Your task to perform on an android device: turn smart compose on in the gmail app Image 0: 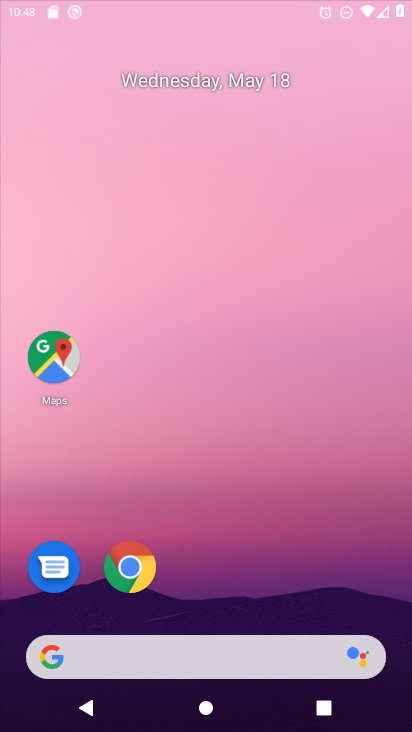
Step 0: press home button
Your task to perform on an android device: turn smart compose on in the gmail app Image 1: 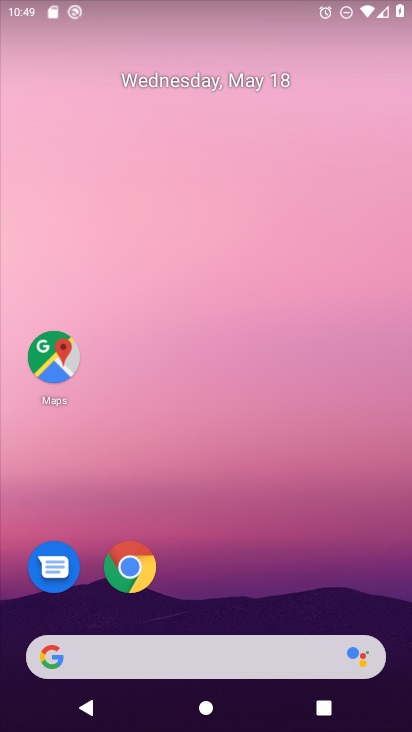
Step 1: drag from (282, 679) to (326, 215)
Your task to perform on an android device: turn smart compose on in the gmail app Image 2: 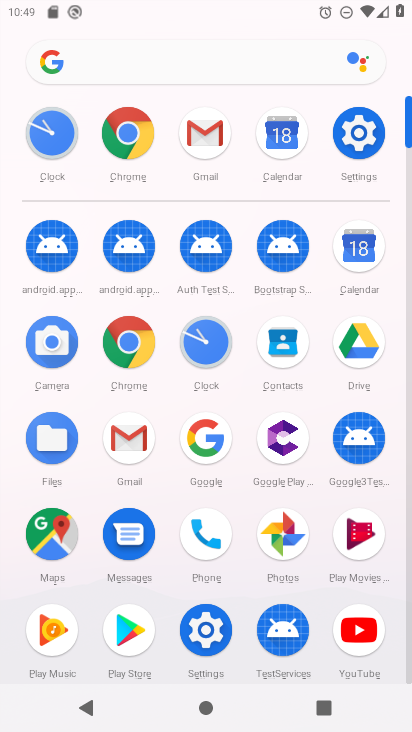
Step 2: click (125, 442)
Your task to perform on an android device: turn smart compose on in the gmail app Image 3: 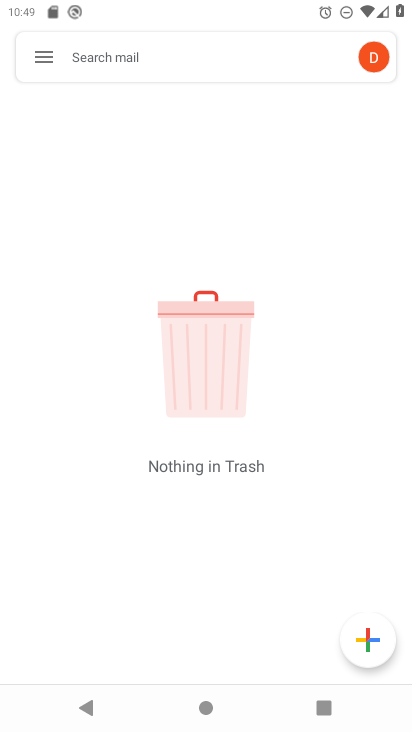
Step 3: click (26, 60)
Your task to perform on an android device: turn smart compose on in the gmail app Image 4: 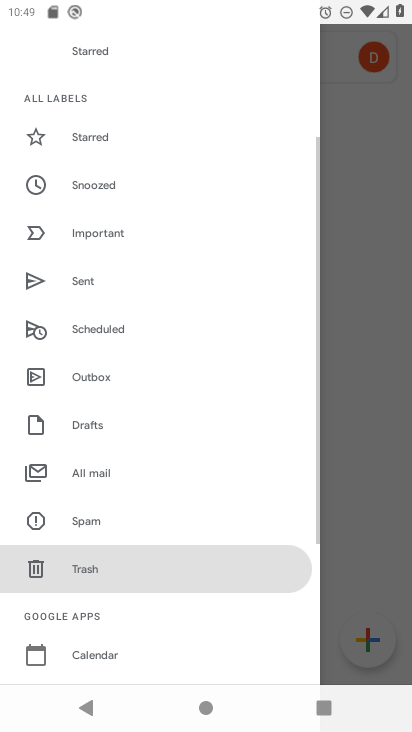
Step 4: drag from (110, 616) to (125, 303)
Your task to perform on an android device: turn smart compose on in the gmail app Image 5: 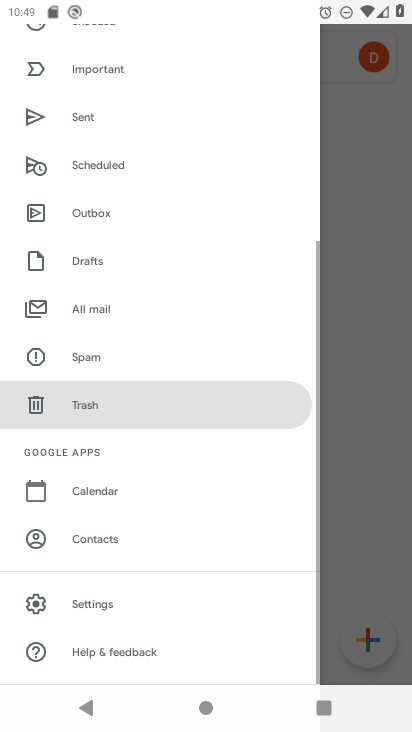
Step 5: click (97, 594)
Your task to perform on an android device: turn smart compose on in the gmail app Image 6: 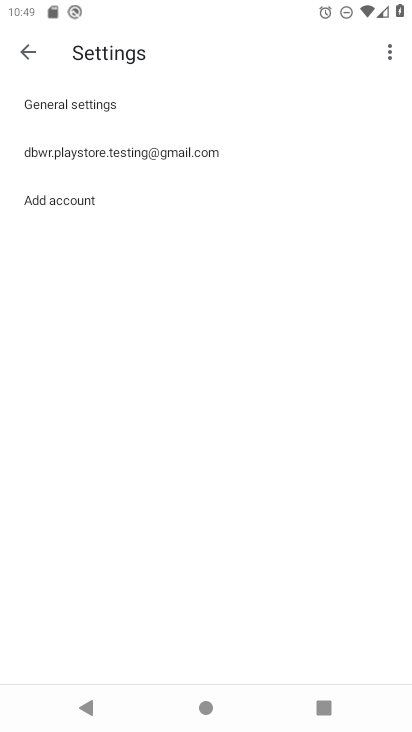
Step 6: click (124, 160)
Your task to perform on an android device: turn smart compose on in the gmail app Image 7: 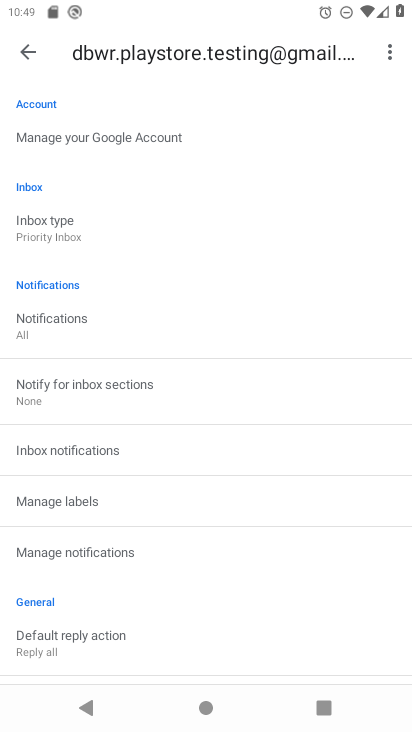
Step 7: drag from (151, 608) to (202, 37)
Your task to perform on an android device: turn smart compose on in the gmail app Image 8: 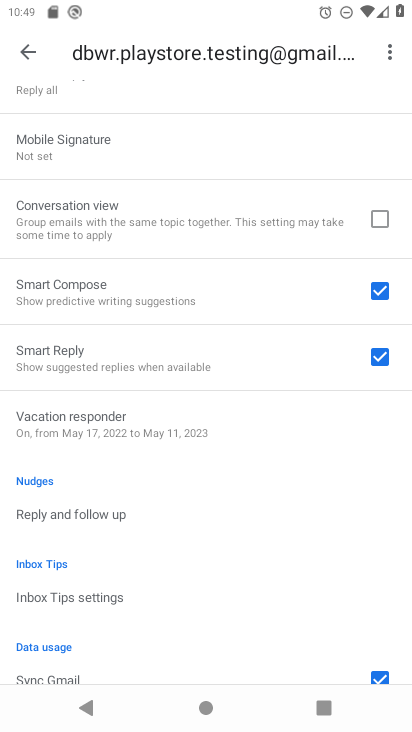
Step 8: click (141, 577)
Your task to perform on an android device: turn smart compose on in the gmail app Image 9: 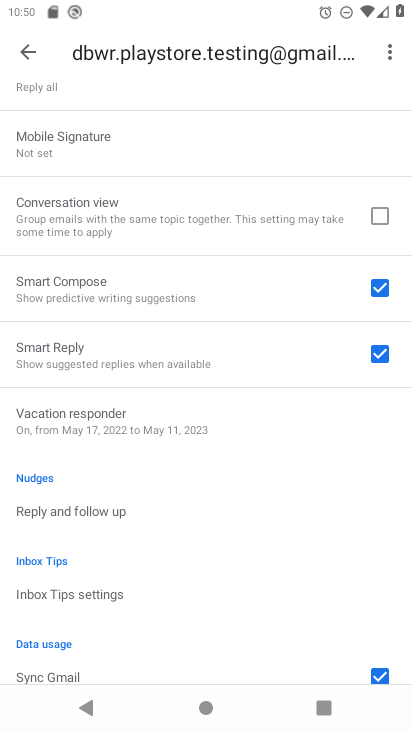
Step 9: click (382, 288)
Your task to perform on an android device: turn smart compose on in the gmail app Image 10: 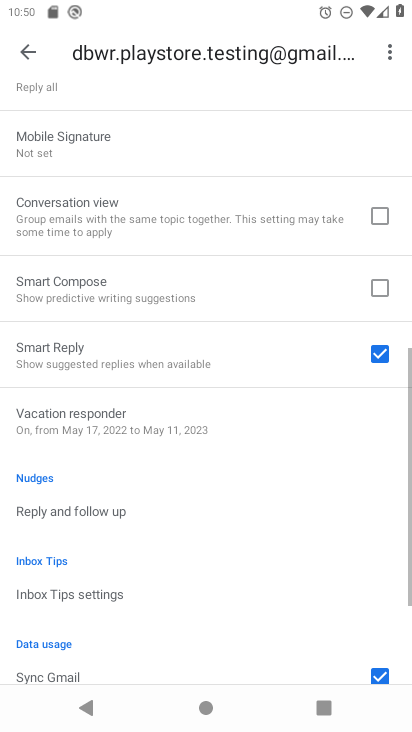
Step 10: click (382, 287)
Your task to perform on an android device: turn smart compose on in the gmail app Image 11: 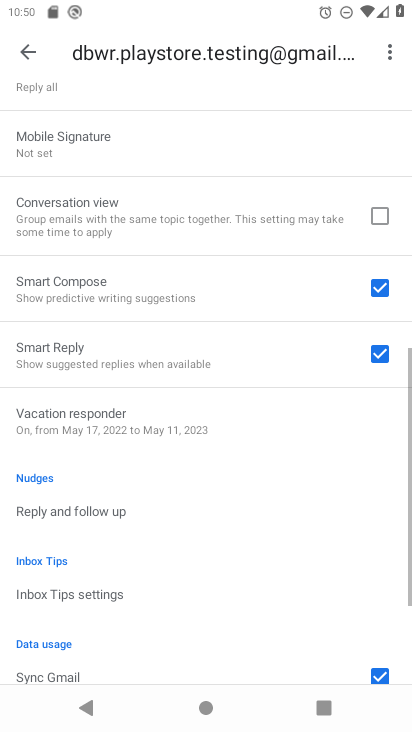
Step 11: task complete